Your task to perform on an android device: turn off picture-in-picture Image 0: 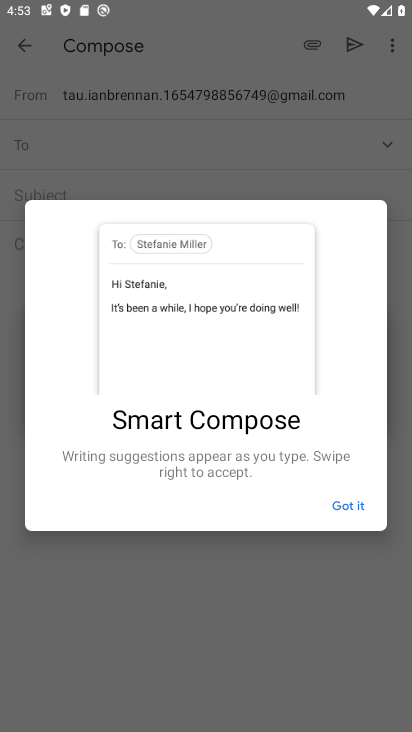
Step 0: press home button
Your task to perform on an android device: turn off picture-in-picture Image 1: 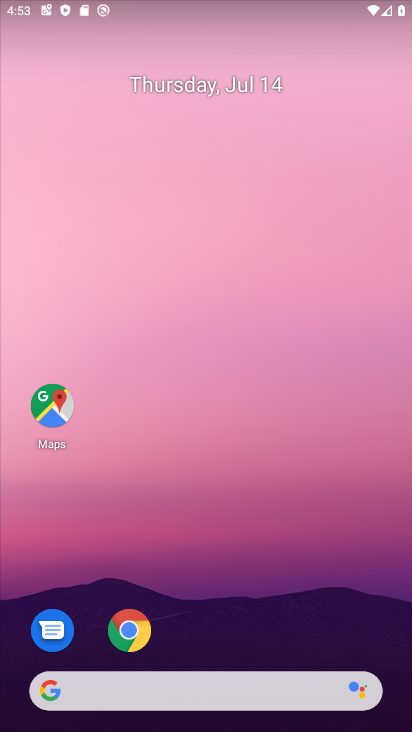
Step 1: drag from (173, 691) to (218, 71)
Your task to perform on an android device: turn off picture-in-picture Image 2: 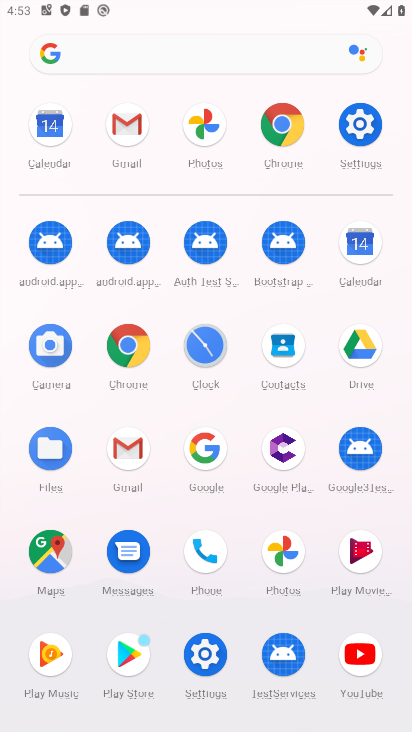
Step 2: click (359, 128)
Your task to perform on an android device: turn off picture-in-picture Image 3: 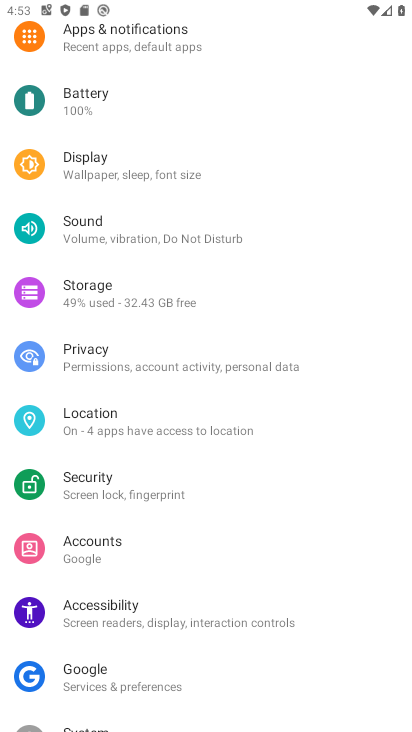
Step 3: drag from (171, 678) to (232, 66)
Your task to perform on an android device: turn off picture-in-picture Image 4: 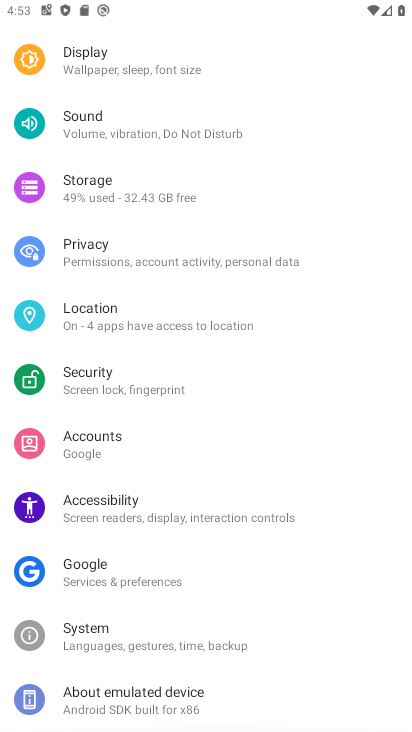
Step 4: drag from (219, 99) to (178, 668)
Your task to perform on an android device: turn off picture-in-picture Image 5: 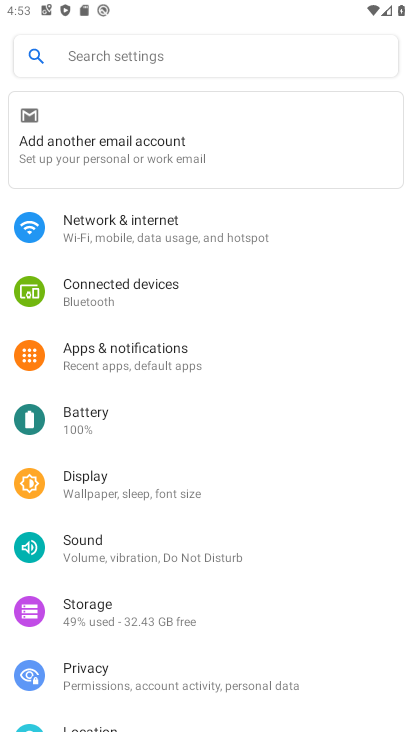
Step 5: click (167, 364)
Your task to perform on an android device: turn off picture-in-picture Image 6: 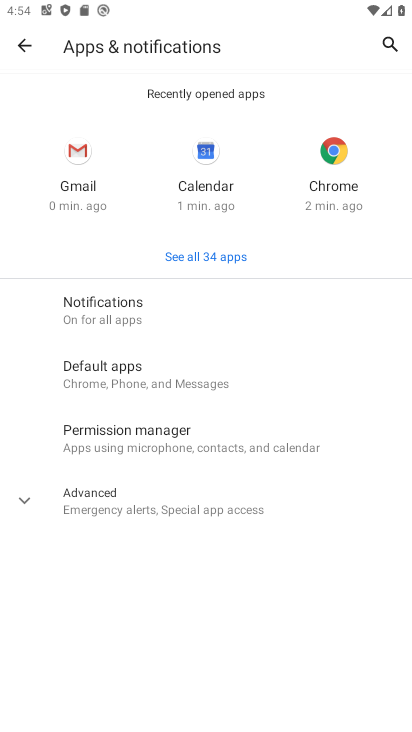
Step 6: click (132, 510)
Your task to perform on an android device: turn off picture-in-picture Image 7: 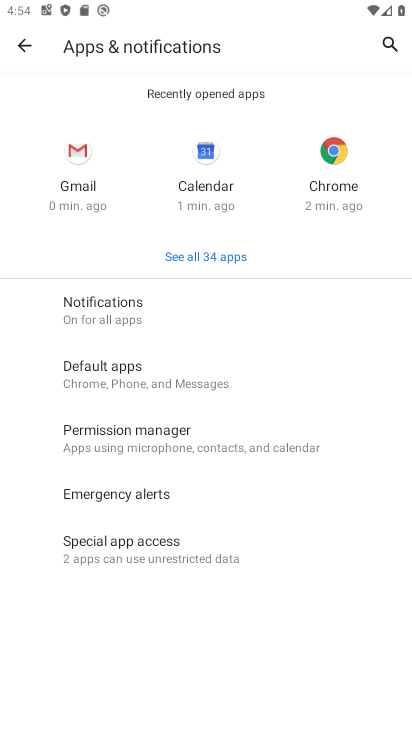
Step 7: click (135, 559)
Your task to perform on an android device: turn off picture-in-picture Image 8: 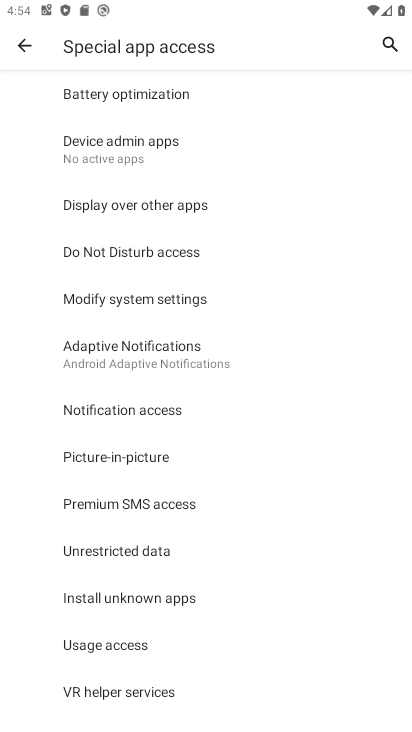
Step 8: click (145, 453)
Your task to perform on an android device: turn off picture-in-picture Image 9: 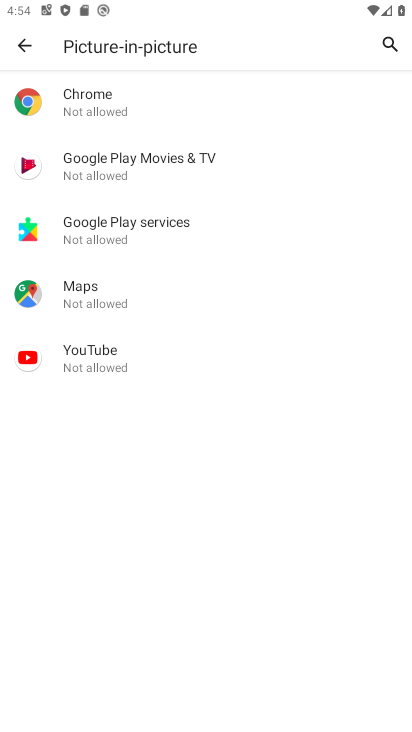
Step 9: task complete